Your task to perform on an android device: Go to eBay Image 0: 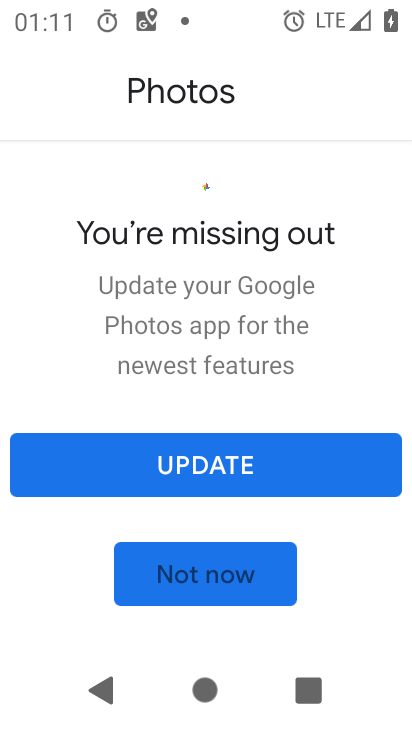
Step 0: press home button
Your task to perform on an android device: Go to eBay Image 1: 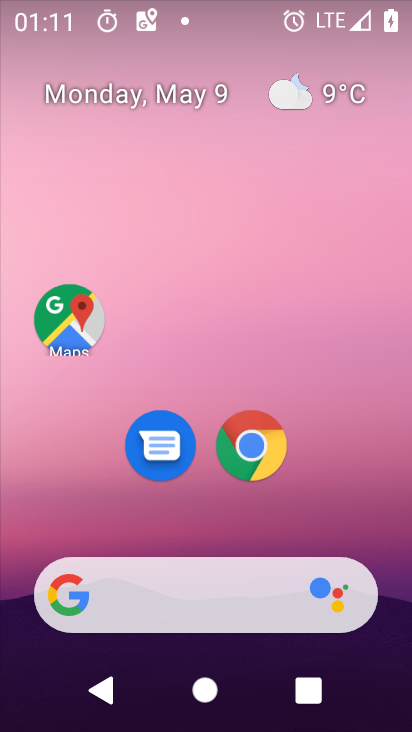
Step 1: click (254, 444)
Your task to perform on an android device: Go to eBay Image 2: 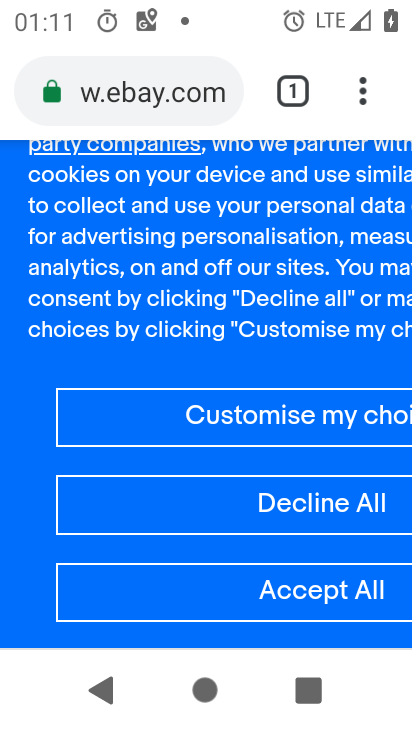
Step 2: task complete